Your task to perform on an android device: check android version Image 0: 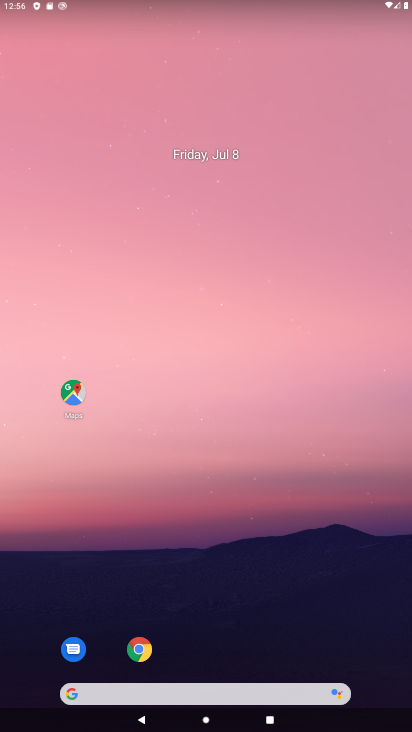
Step 0: drag from (310, 607) to (294, 73)
Your task to perform on an android device: check android version Image 1: 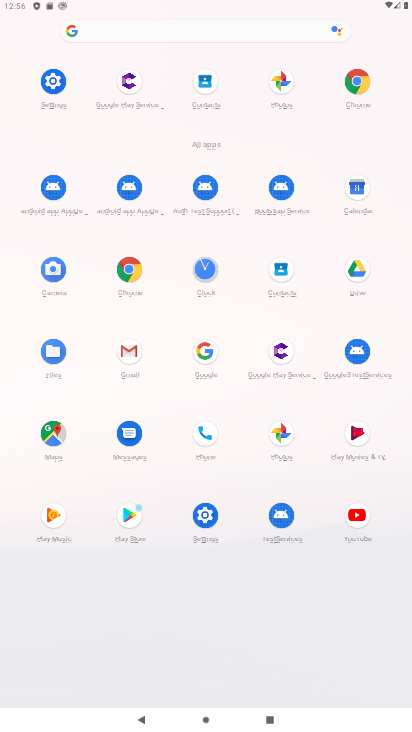
Step 1: click (56, 77)
Your task to perform on an android device: check android version Image 2: 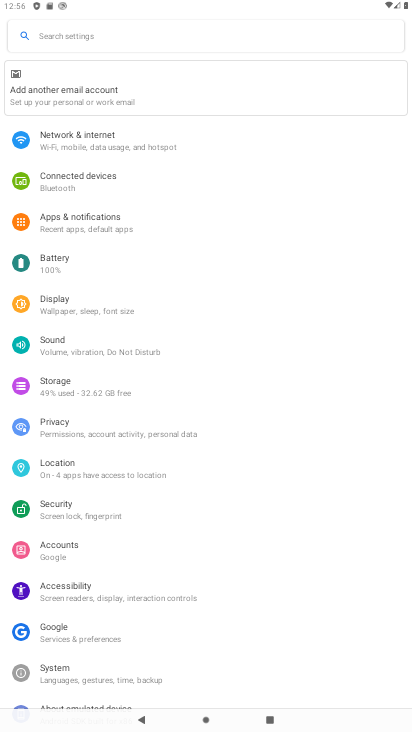
Step 2: drag from (326, 647) to (345, 235)
Your task to perform on an android device: check android version Image 3: 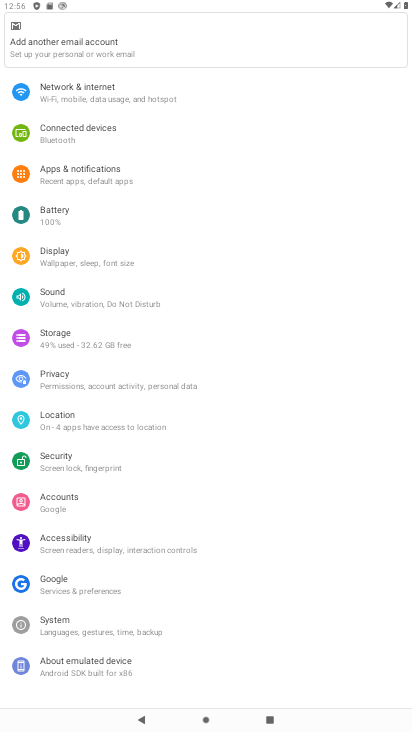
Step 3: click (102, 661)
Your task to perform on an android device: check android version Image 4: 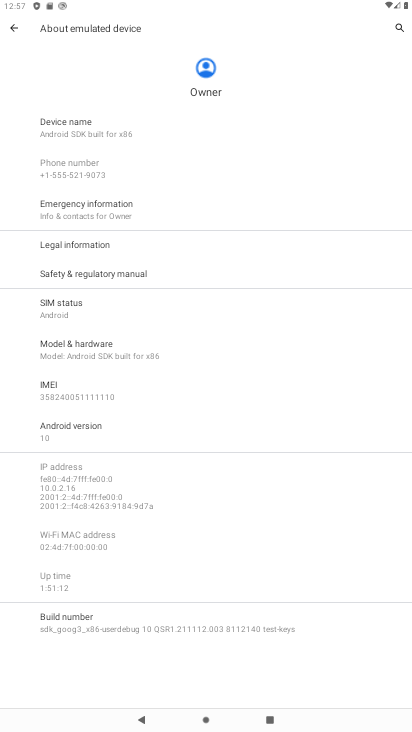
Step 4: click (91, 438)
Your task to perform on an android device: check android version Image 5: 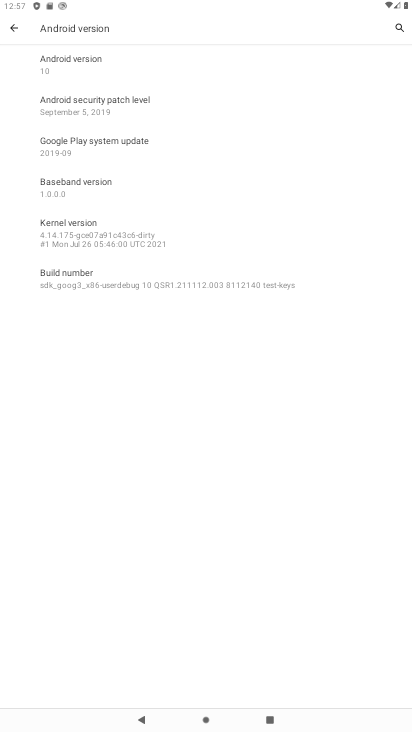
Step 5: task complete